Your task to perform on an android device: Play the last video I watched on Youtube Image 0: 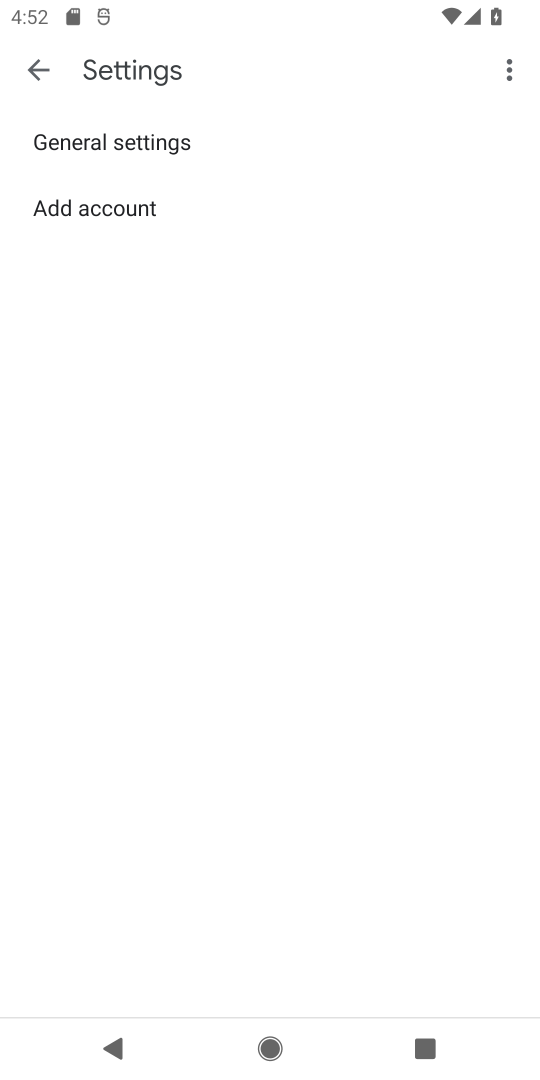
Step 0: press home button
Your task to perform on an android device: Play the last video I watched on Youtube Image 1: 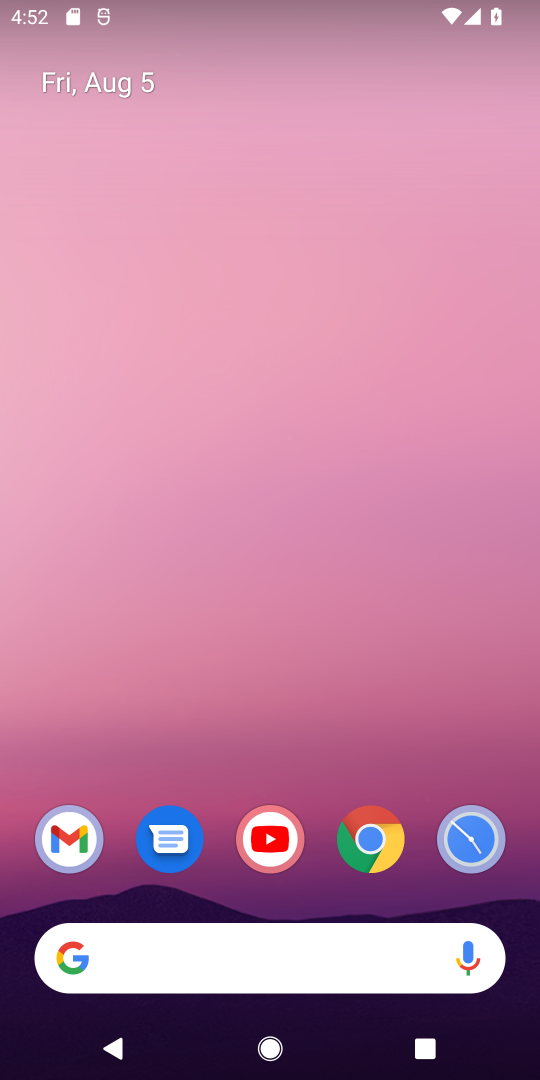
Step 1: click (284, 833)
Your task to perform on an android device: Play the last video I watched on Youtube Image 2: 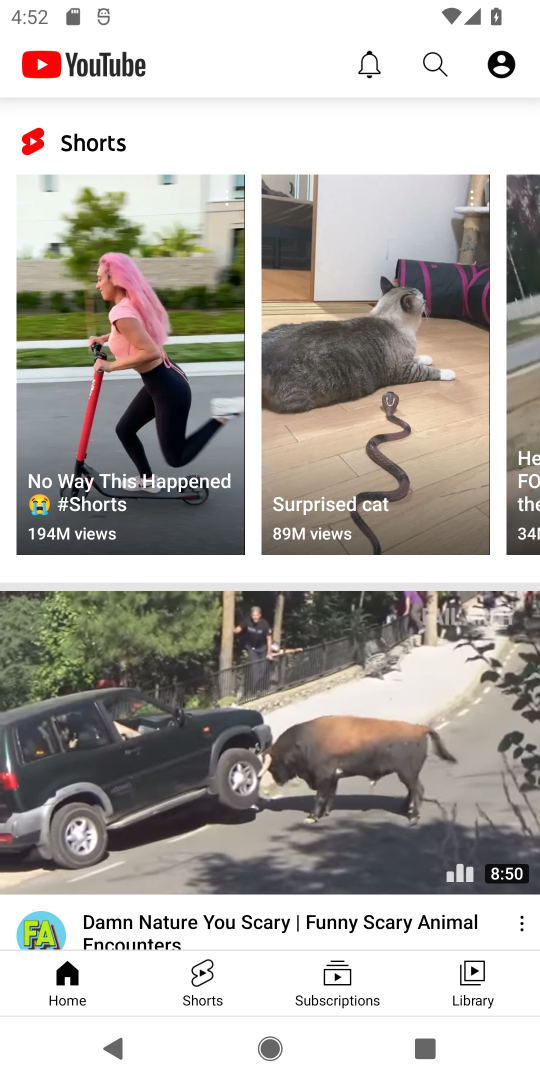
Step 2: click (487, 965)
Your task to perform on an android device: Play the last video I watched on Youtube Image 3: 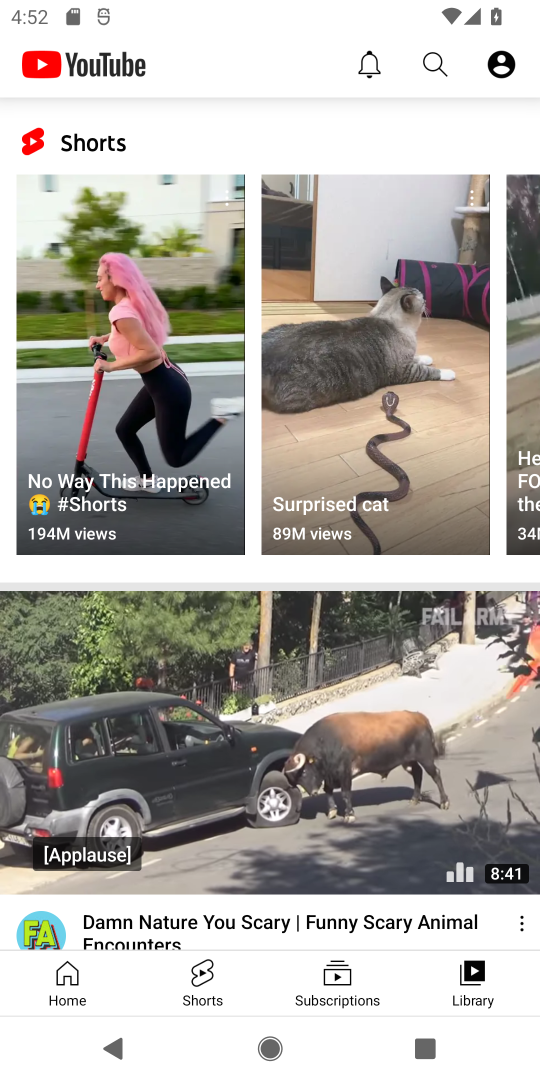
Step 3: click (480, 989)
Your task to perform on an android device: Play the last video I watched on Youtube Image 4: 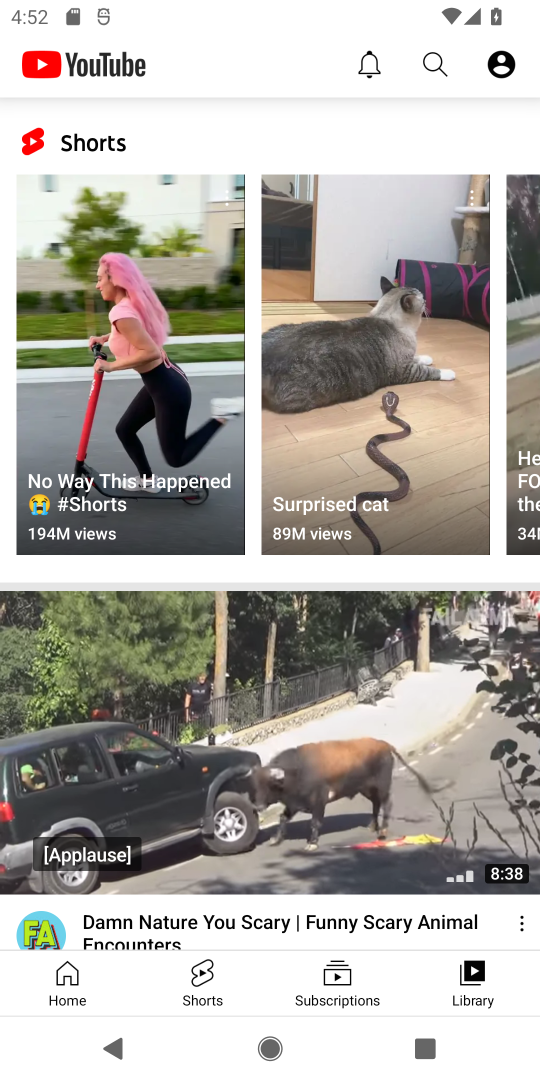
Step 4: task complete